Your task to perform on an android device: Show the shopping cart on target. Image 0: 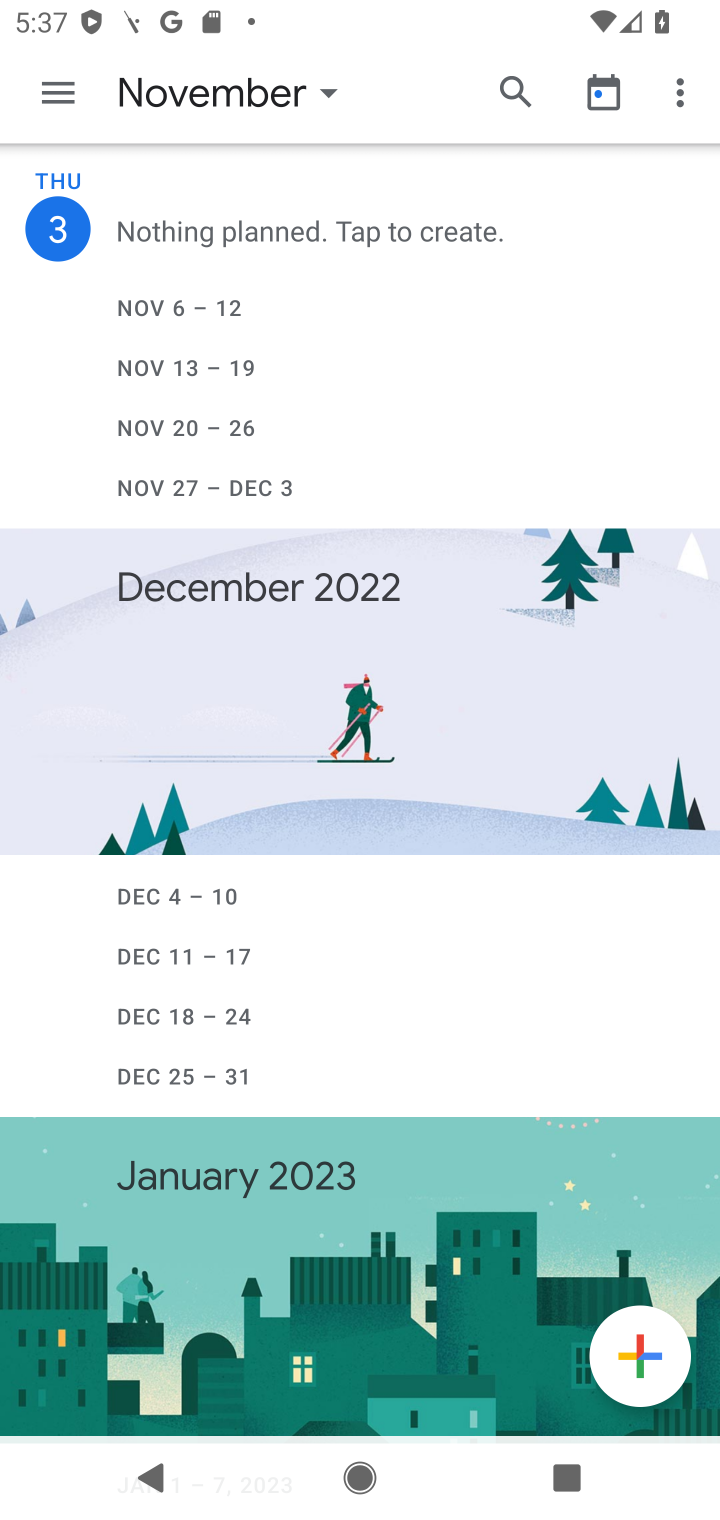
Step 0: press home button
Your task to perform on an android device: Show the shopping cart on target. Image 1: 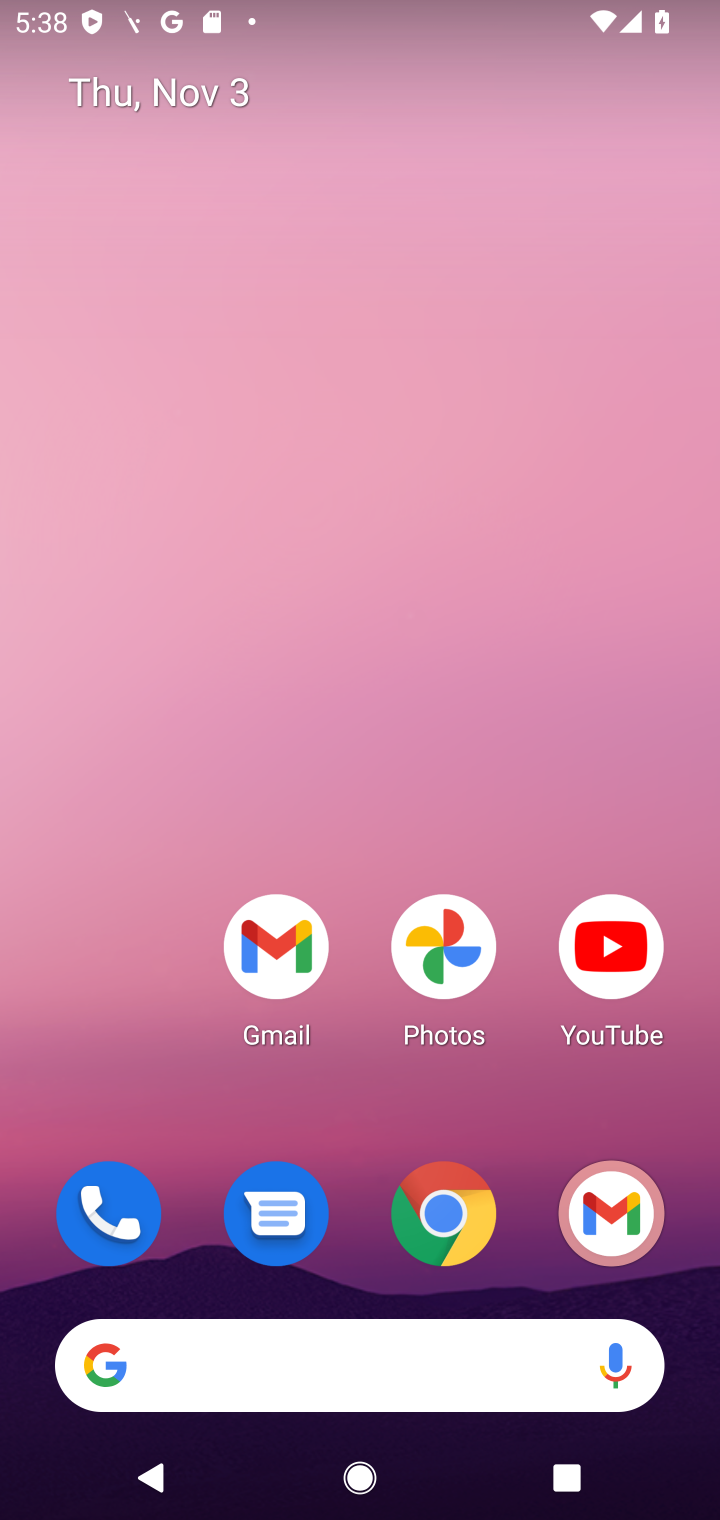
Step 1: click (449, 1219)
Your task to perform on an android device: Show the shopping cart on target. Image 2: 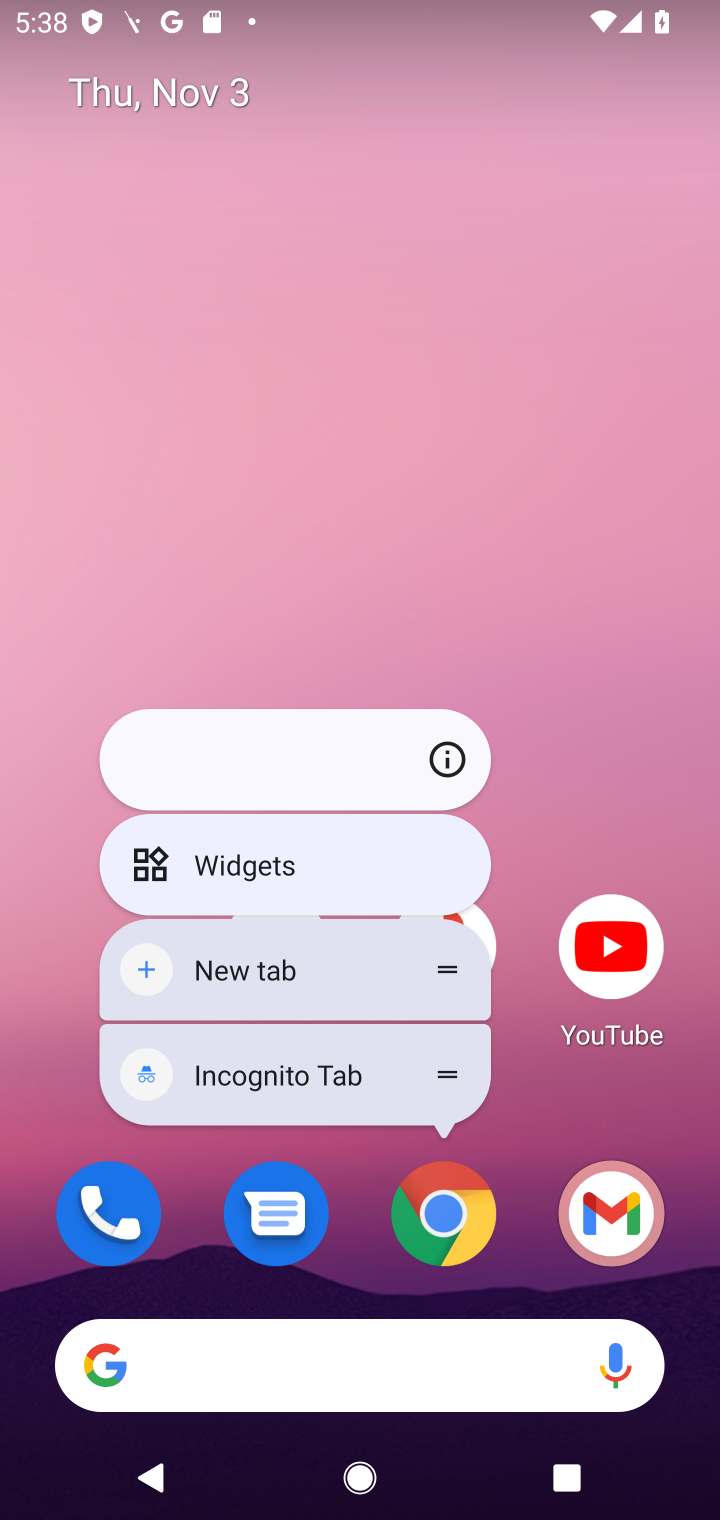
Step 2: click (449, 1219)
Your task to perform on an android device: Show the shopping cart on target. Image 3: 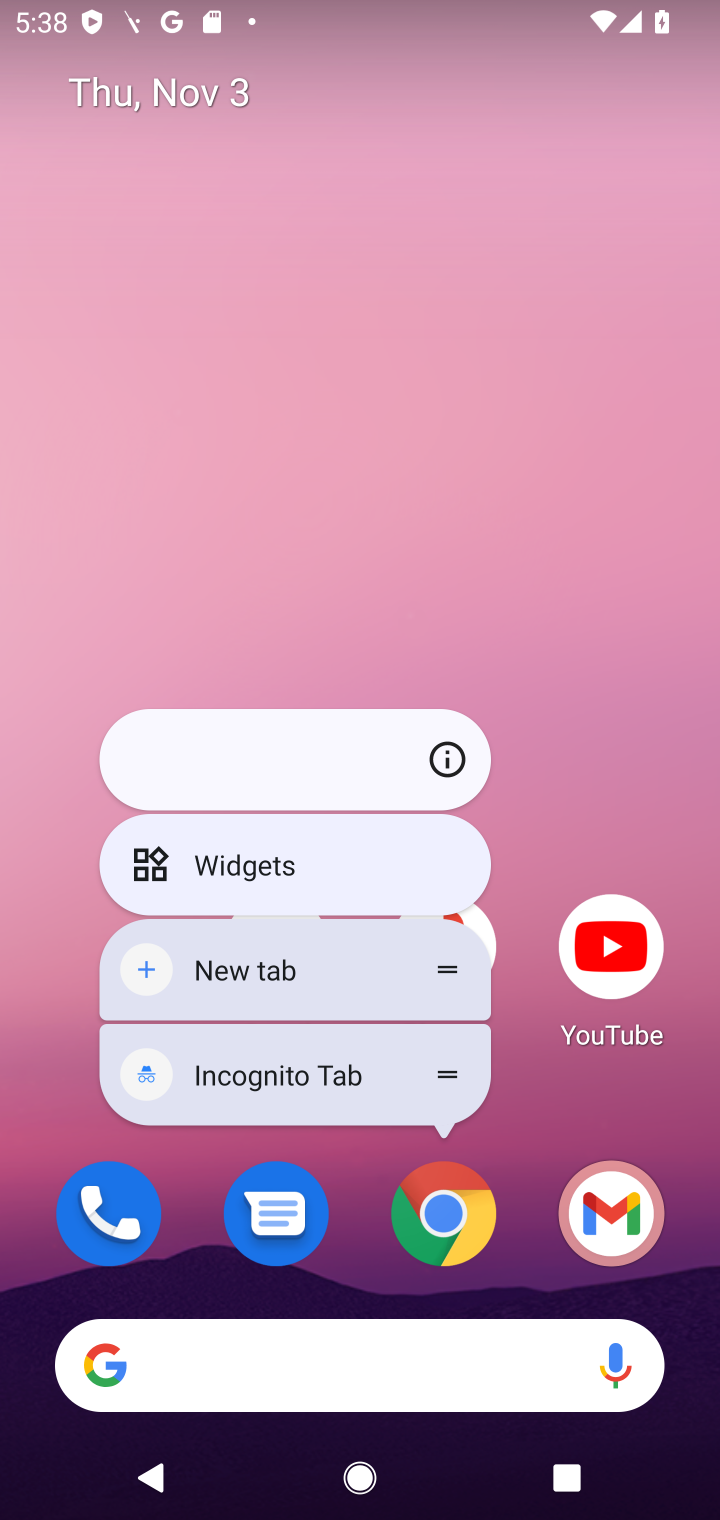
Step 3: click (449, 1217)
Your task to perform on an android device: Show the shopping cart on target. Image 4: 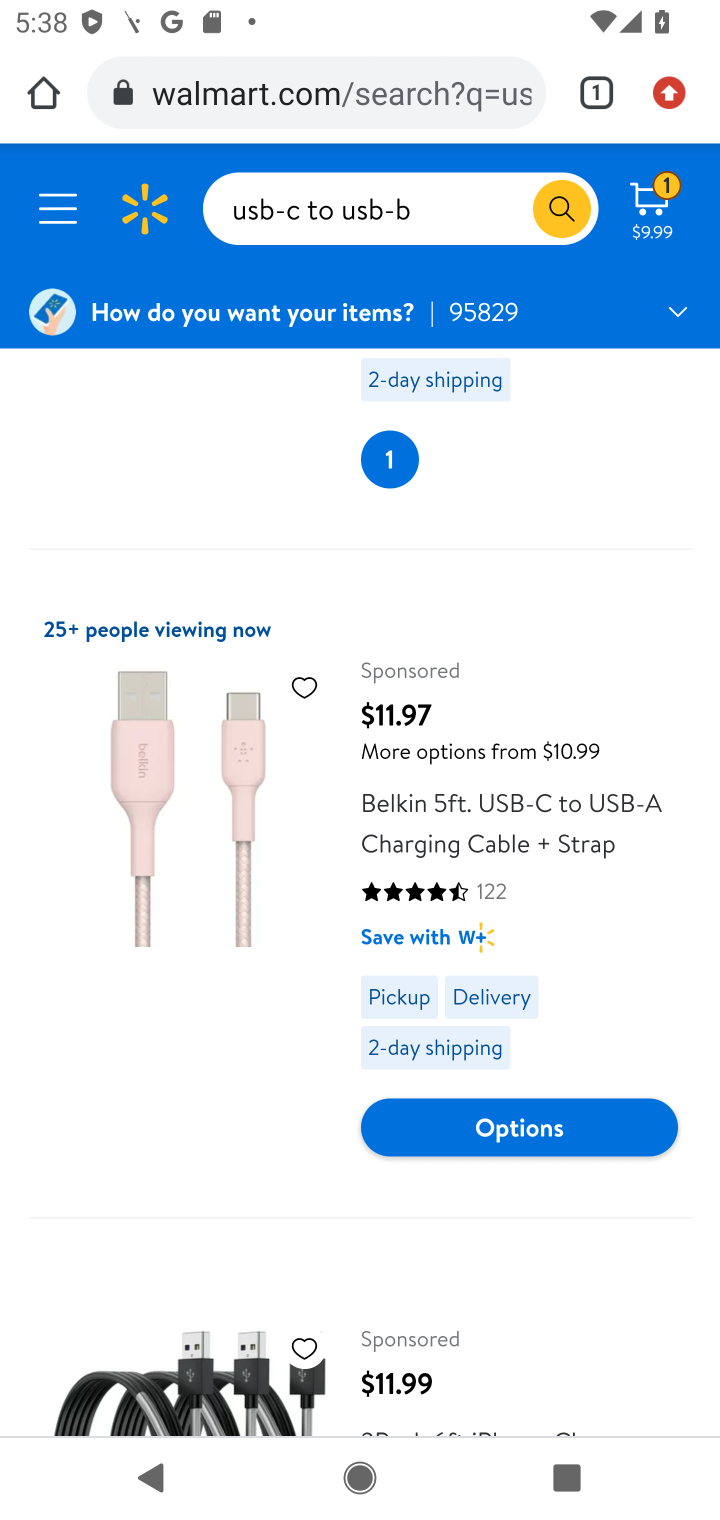
Step 4: click (317, 91)
Your task to perform on an android device: Show the shopping cart on target. Image 5: 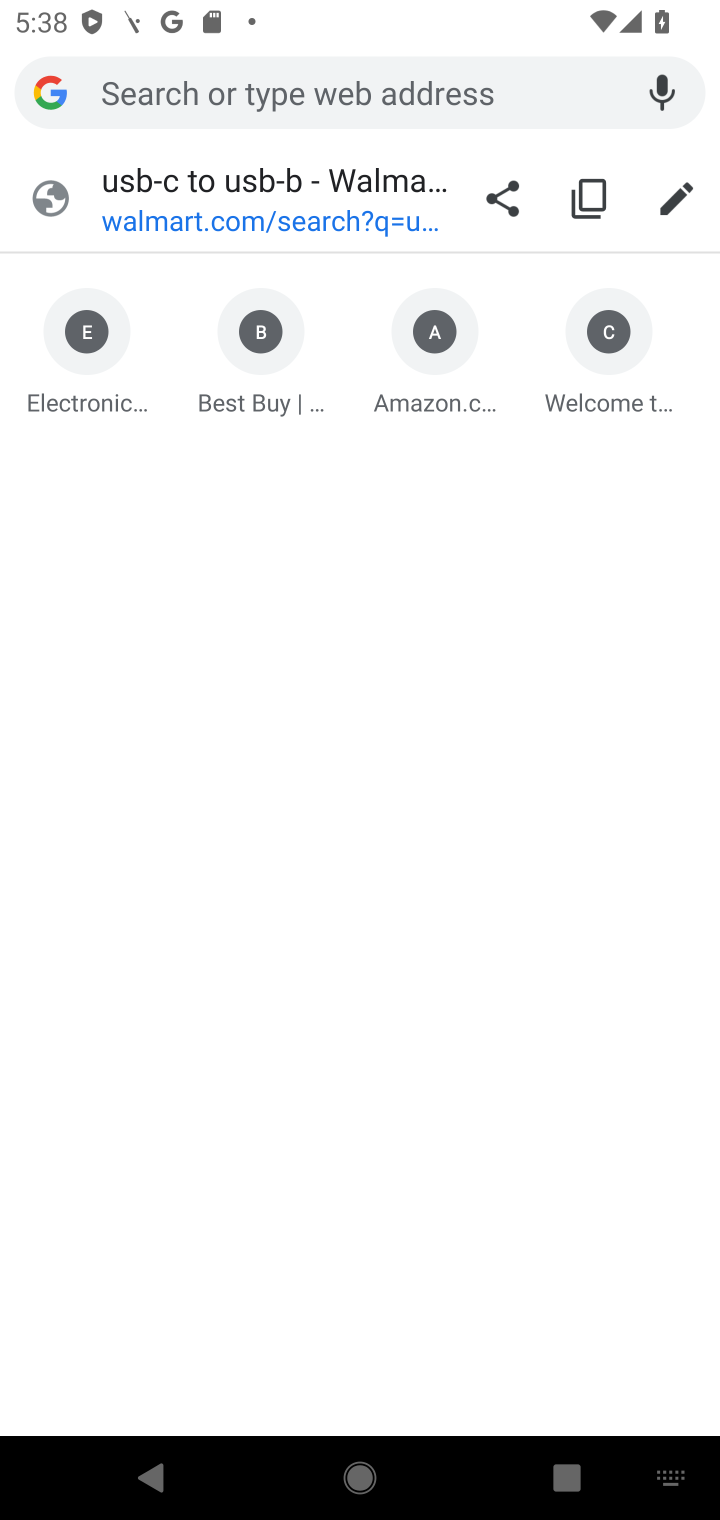
Step 5: type "target.com"
Your task to perform on an android device: Show the shopping cart on target. Image 6: 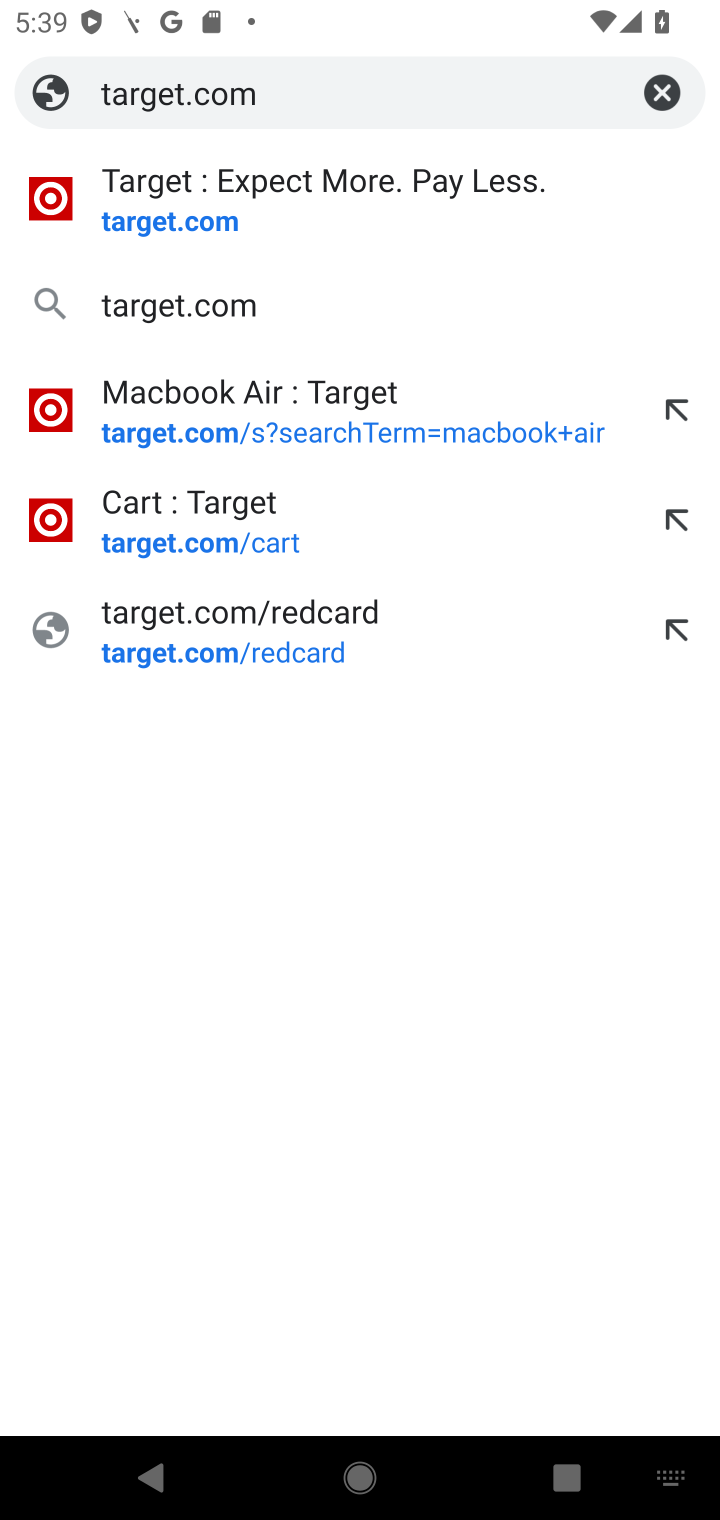
Step 6: click (214, 235)
Your task to perform on an android device: Show the shopping cart on target. Image 7: 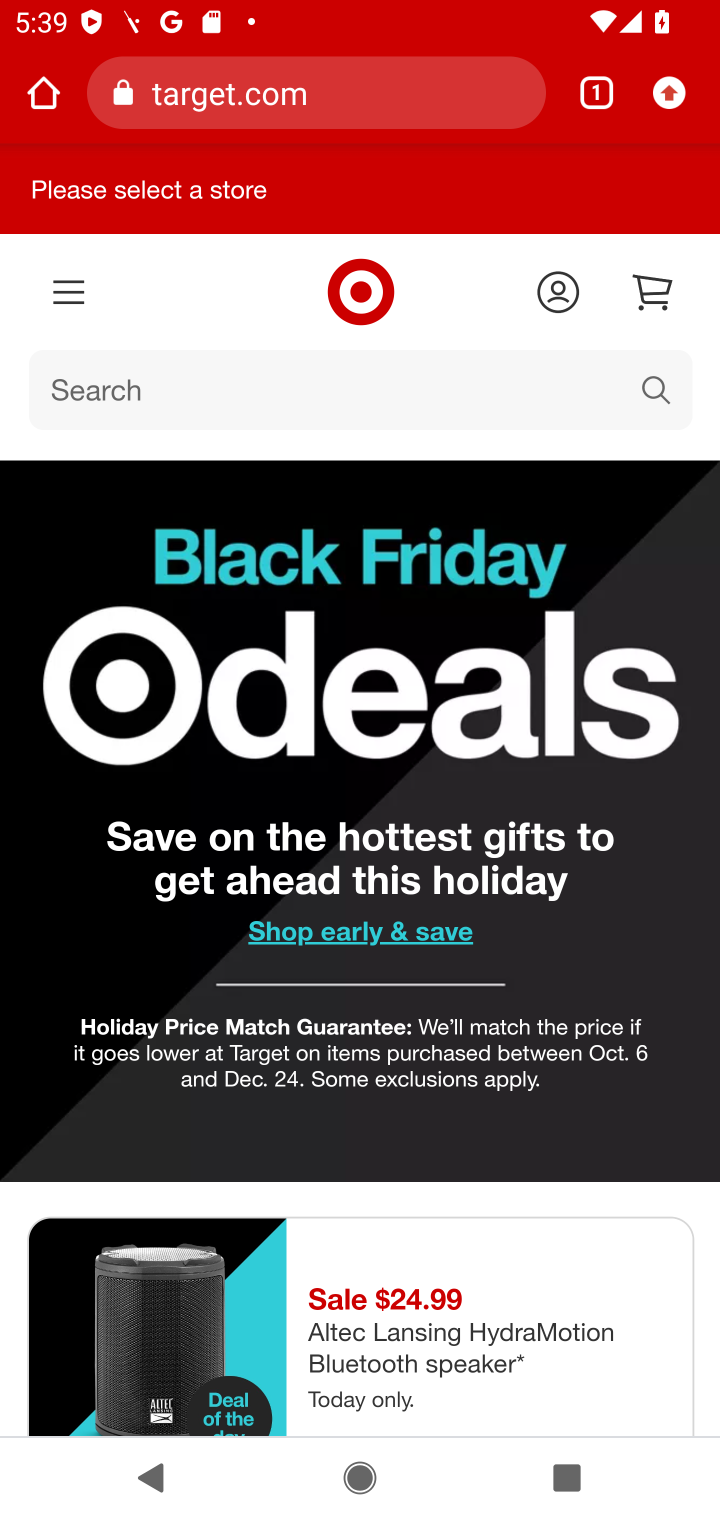
Step 7: click (646, 284)
Your task to perform on an android device: Show the shopping cart on target. Image 8: 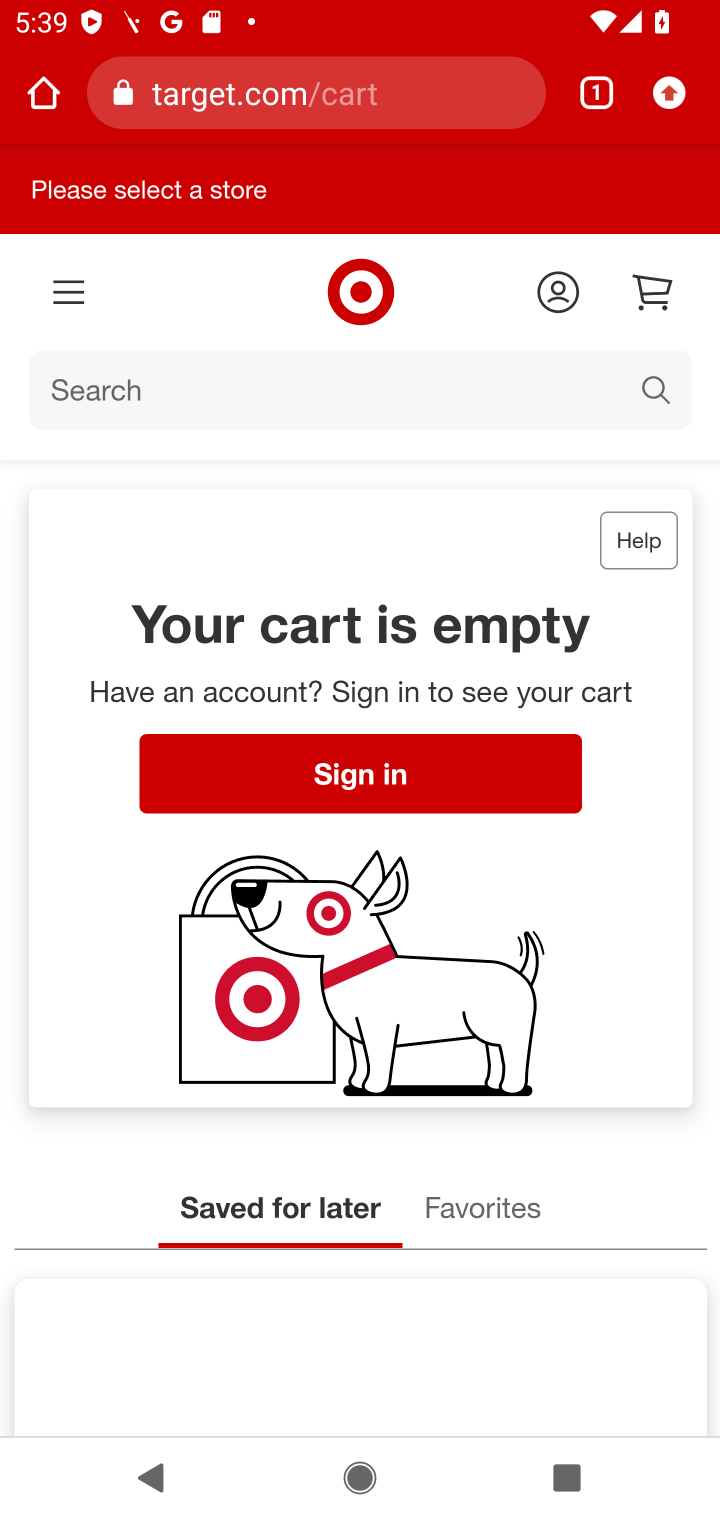
Step 8: task complete